Your task to perform on an android device: manage bookmarks in the chrome app Image 0: 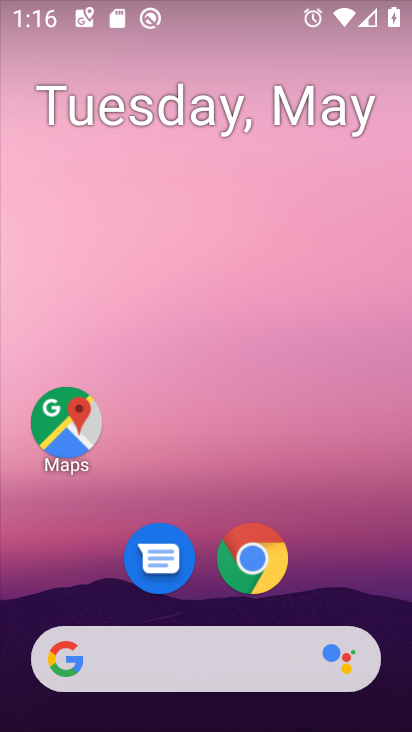
Step 0: click (276, 557)
Your task to perform on an android device: manage bookmarks in the chrome app Image 1: 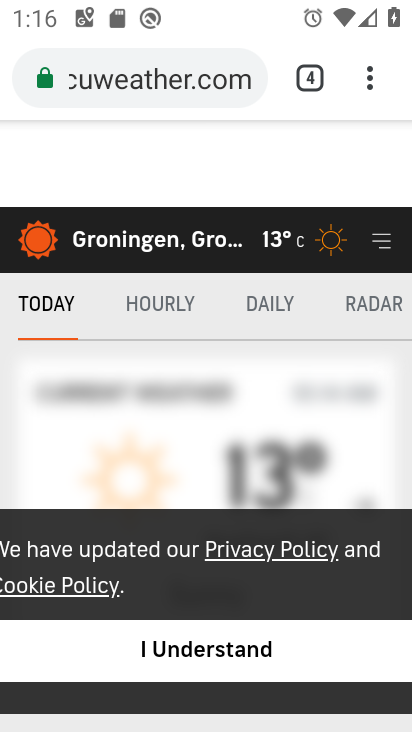
Step 1: click (359, 90)
Your task to perform on an android device: manage bookmarks in the chrome app Image 2: 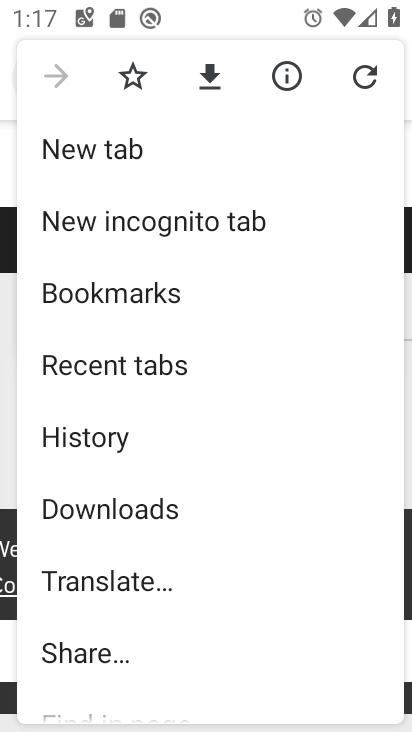
Step 2: click (209, 309)
Your task to perform on an android device: manage bookmarks in the chrome app Image 3: 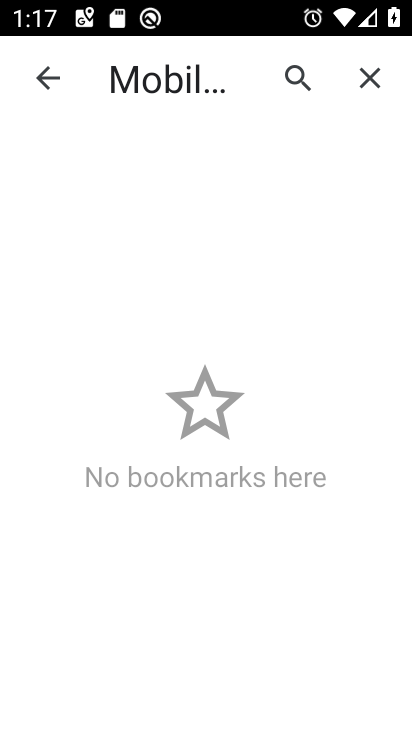
Step 3: task complete